Your task to perform on an android device: open a bookmark in the chrome app Image 0: 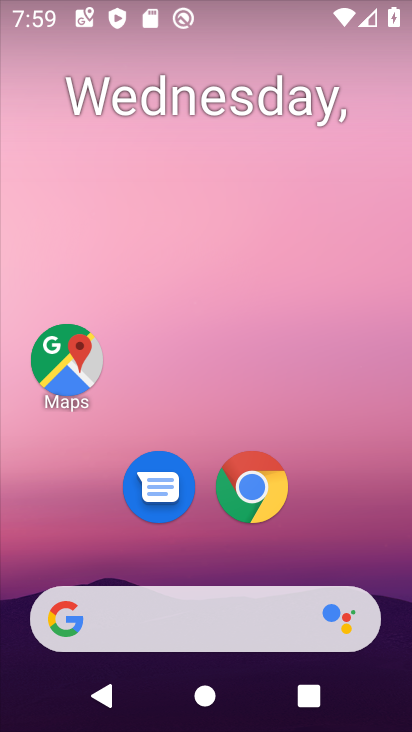
Step 0: drag from (360, 560) to (354, 249)
Your task to perform on an android device: open a bookmark in the chrome app Image 1: 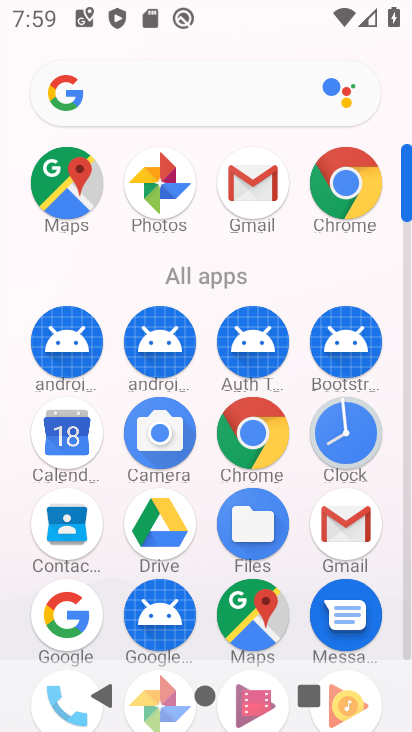
Step 1: click (277, 434)
Your task to perform on an android device: open a bookmark in the chrome app Image 2: 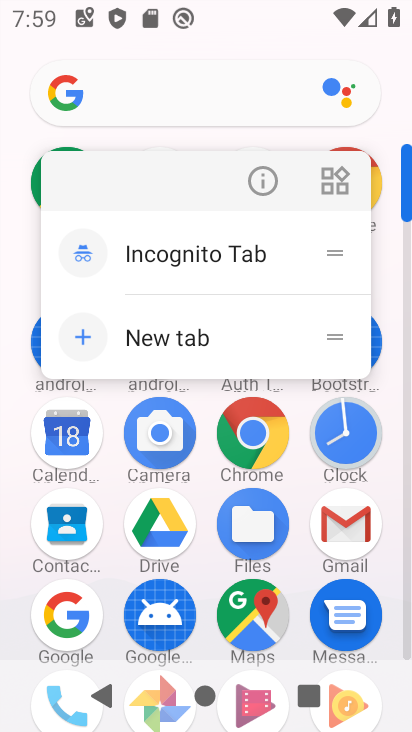
Step 2: click (275, 449)
Your task to perform on an android device: open a bookmark in the chrome app Image 3: 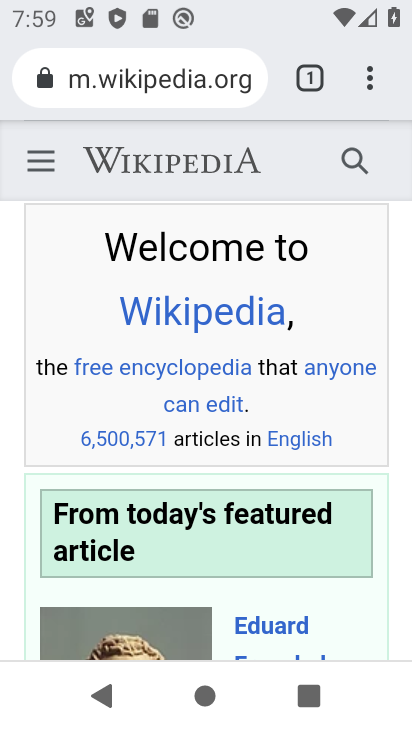
Step 3: click (372, 91)
Your task to perform on an android device: open a bookmark in the chrome app Image 4: 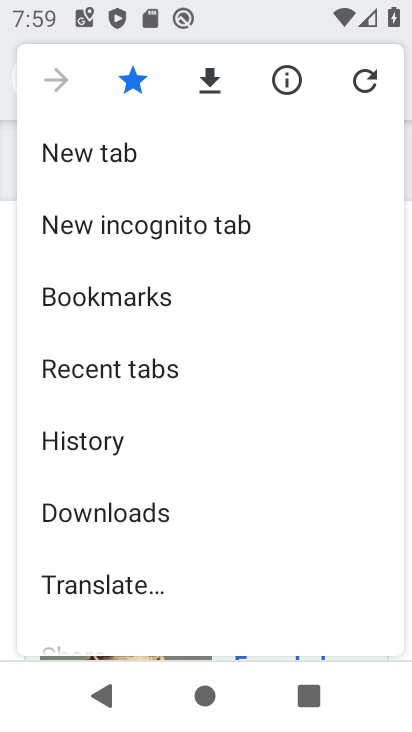
Step 4: click (169, 310)
Your task to perform on an android device: open a bookmark in the chrome app Image 5: 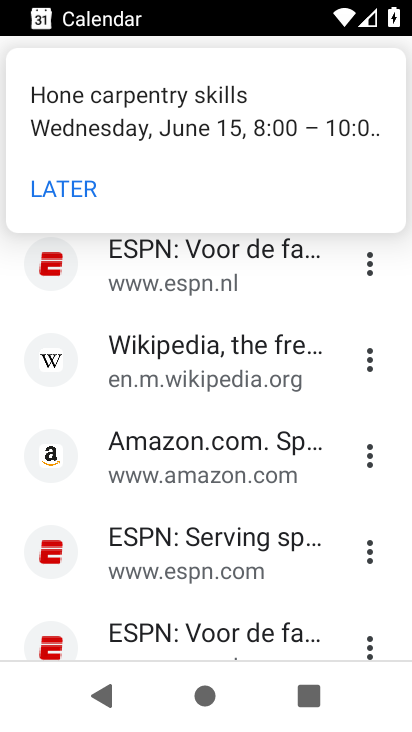
Step 5: click (175, 367)
Your task to perform on an android device: open a bookmark in the chrome app Image 6: 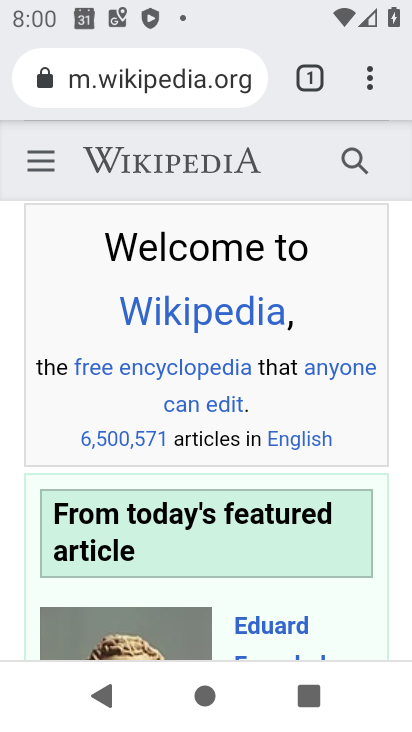
Step 6: task complete